Your task to perform on an android device: delete location history Image 0: 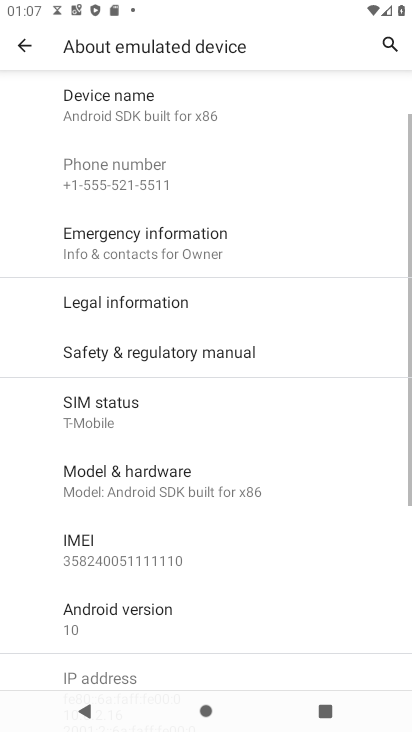
Step 0: press back button
Your task to perform on an android device: delete location history Image 1: 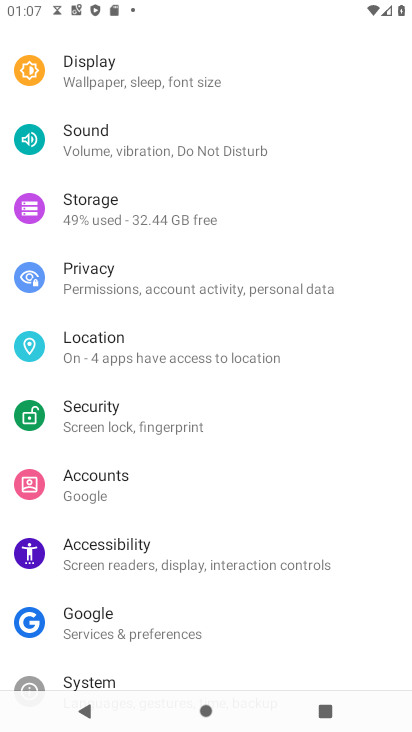
Step 1: press back button
Your task to perform on an android device: delete location history Image 2: 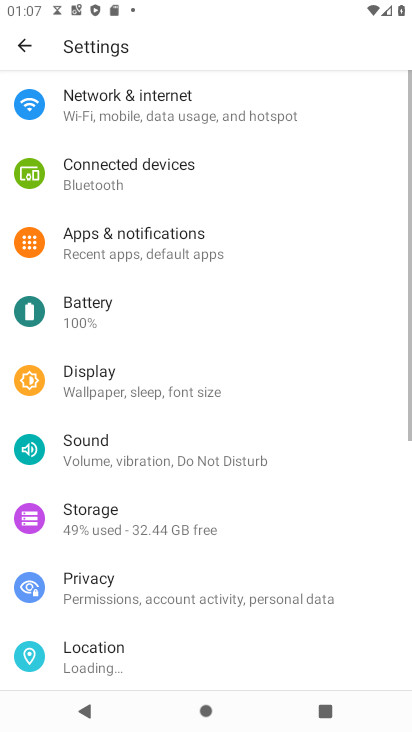
Step 2: press back button
Your task to perform on an android device: delete location history Image 3: 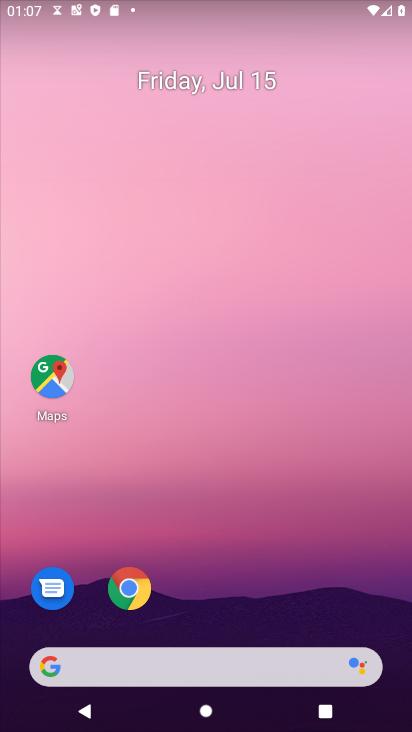
Step 3: click (52, 374)
Your task to perform on an android device: delete location history Image 4: 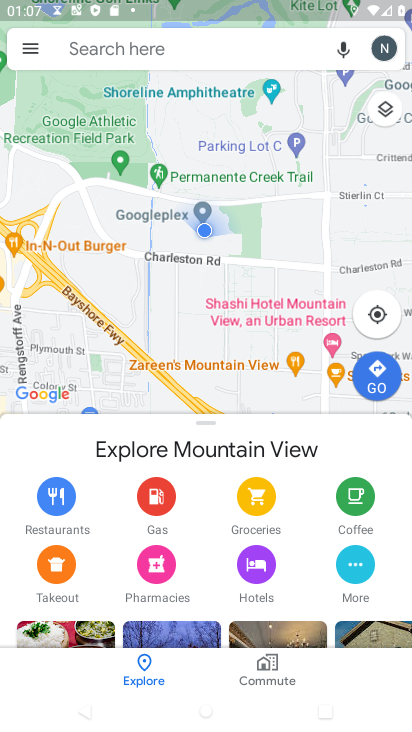
Step 4: click (32, 49)
Your task to perform on an android device: delete location history Image 5: 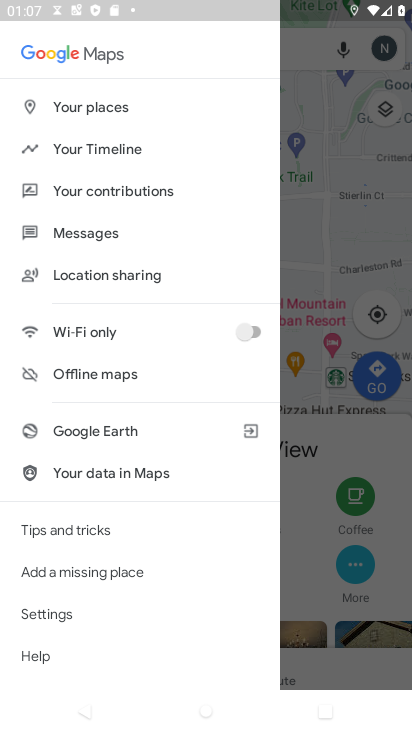
Step 5: click (98, 148)
Your task to perform on an android device: delete location history Image 6: 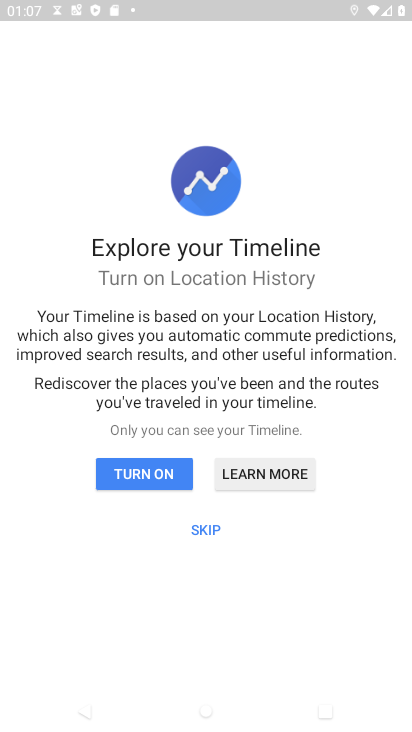
Step 6: click (212, 531)
Your task to perform on an android device: delete location history Image 7: 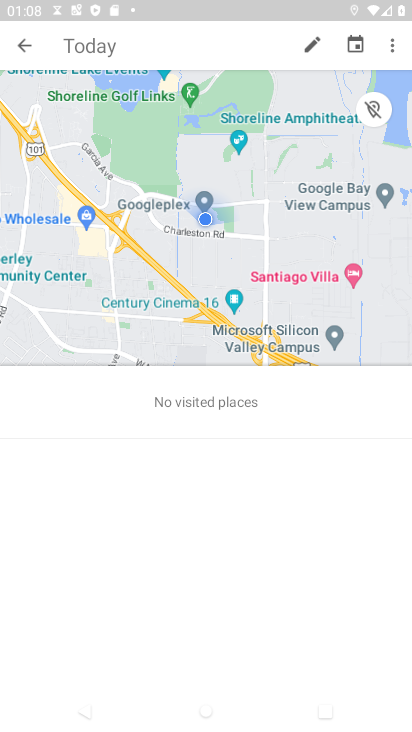
Step 7: click (398, 45)
Your task to perform on an android device: delete location history Image 8: 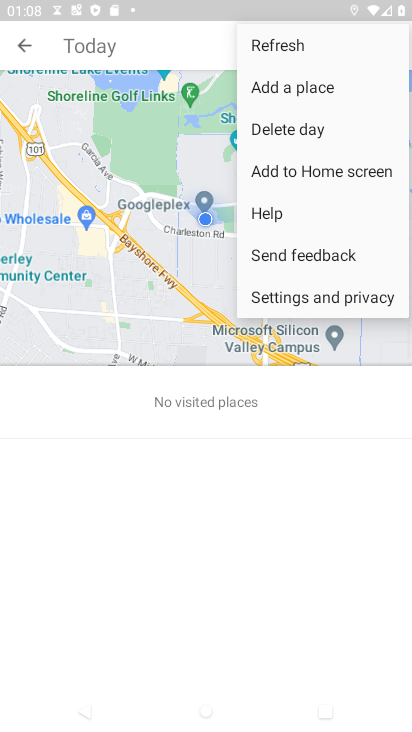
Step 8: click (323, 300)
Your task to perform on an android device: delete location history Image 9: 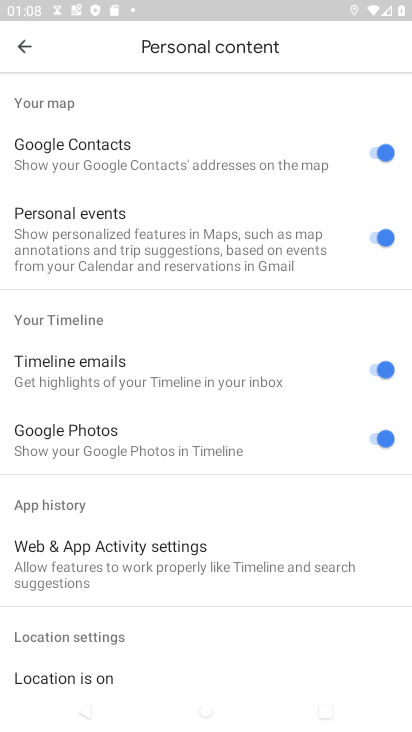
Step 9: drag from (262, 242) to (198, 725)
Your task to perform on an android device: delete location history Image 10: 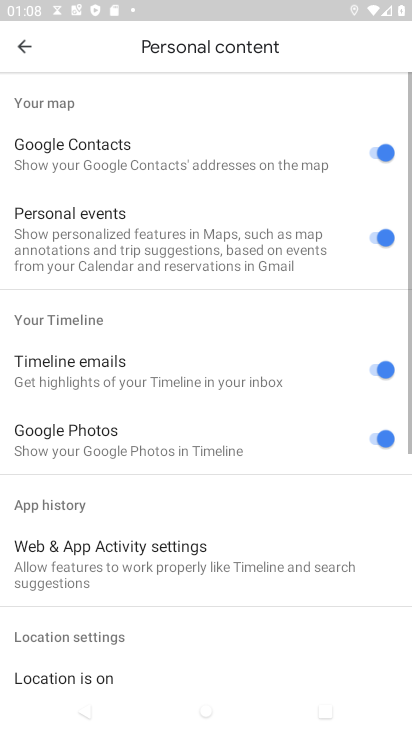
Step 10: click (27, 47)
Your task to perform on an android device: delete location history Image 11: 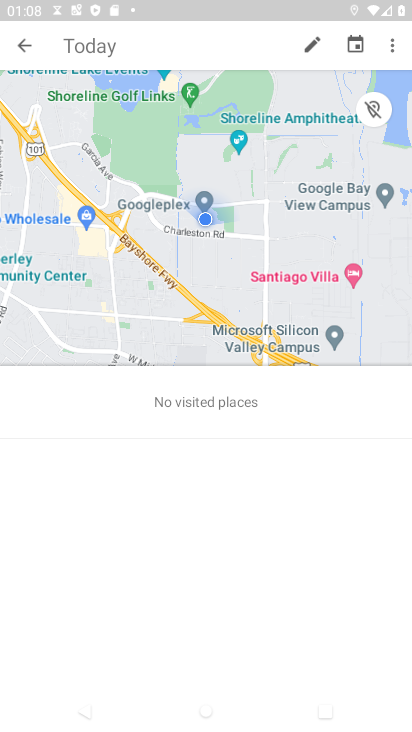
Step 11: click (389, 33)
Your task to perform on an android device: delete location history Image 12: 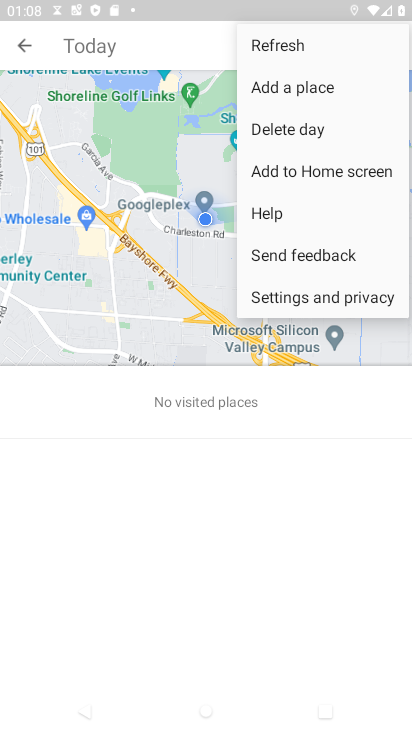
Step 12: click (271, 300)
Your task to perform on an android device: delete location history Image 13: 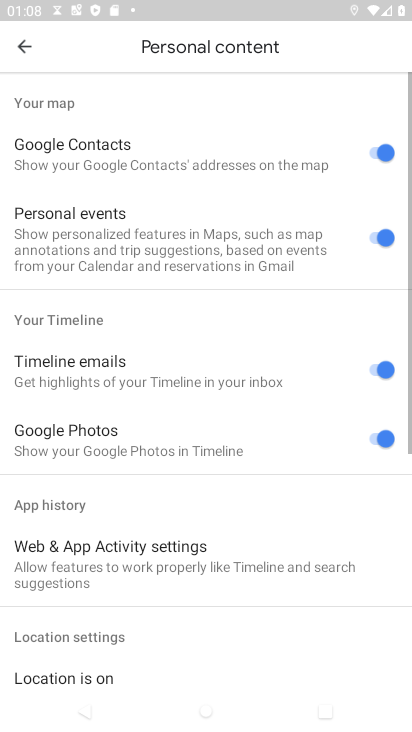
Step 13: drag from (145, 632) to (217, 121)
Your task to perform on an android device: delete location history Image 14: 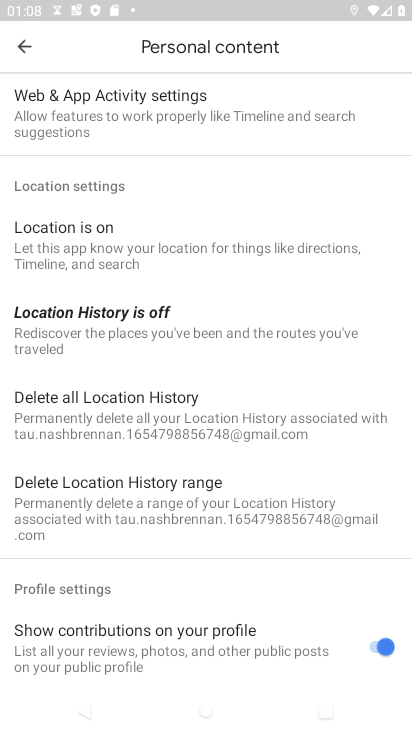
Step 14: click (114, 411)
Your task to perform on an android device: delete location history Image 15: 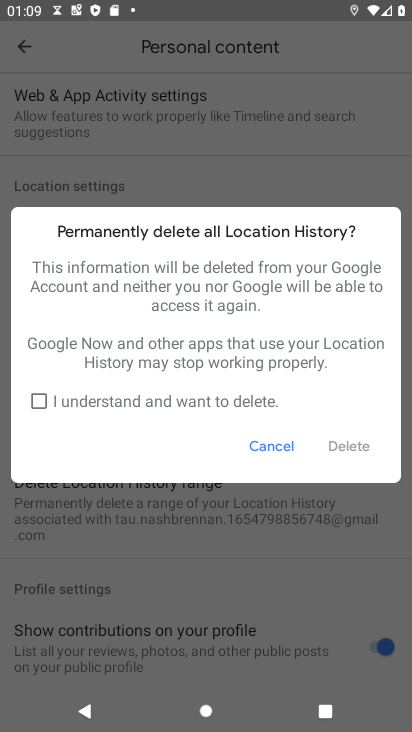
Step 15: click (43, 400)
Your task to perform on an android device: delete location history Image 16: 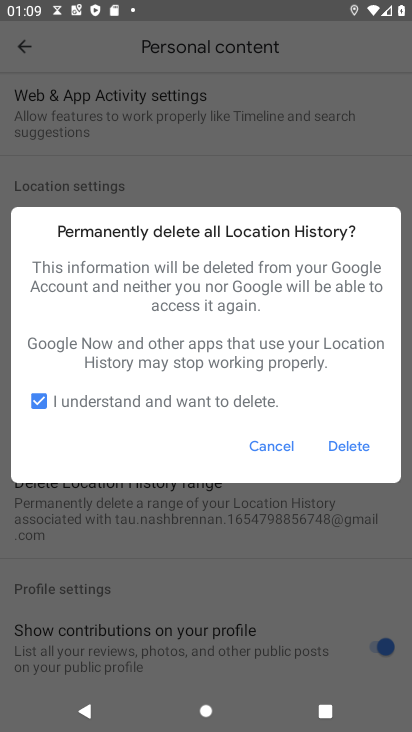
Step 16: click (367, 451)
Your task to perform on an android device: delete location history Image 17: 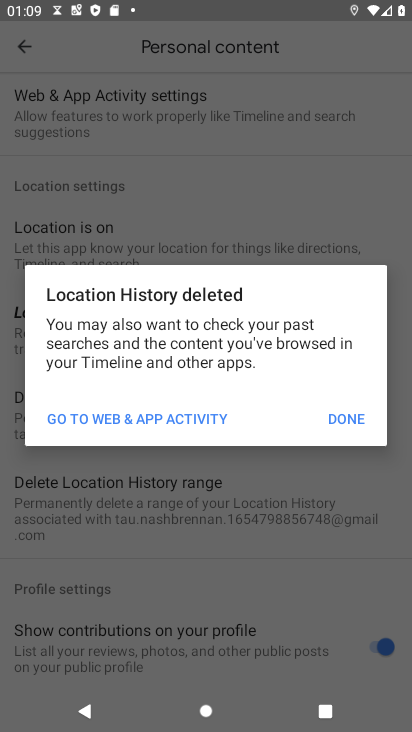
Step 17: click (335, 411)
Your task to perform on an android device: delete location history Image 18: 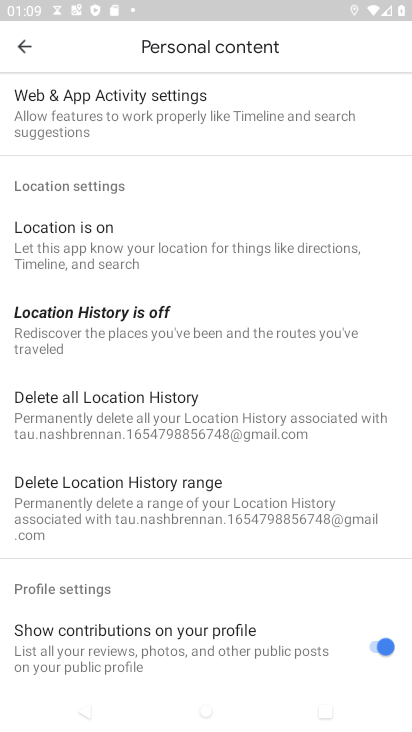
Step 18: task complete